Your task to perform on an android device: open device folders in google photos Image 0: 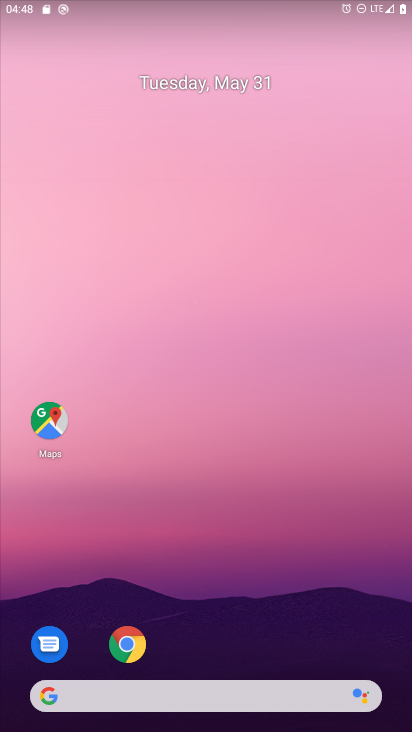
Step 0: drag from (334, 500) to (306, 123)
Your task to perform on an android device: open device folders in google photos Image 1: 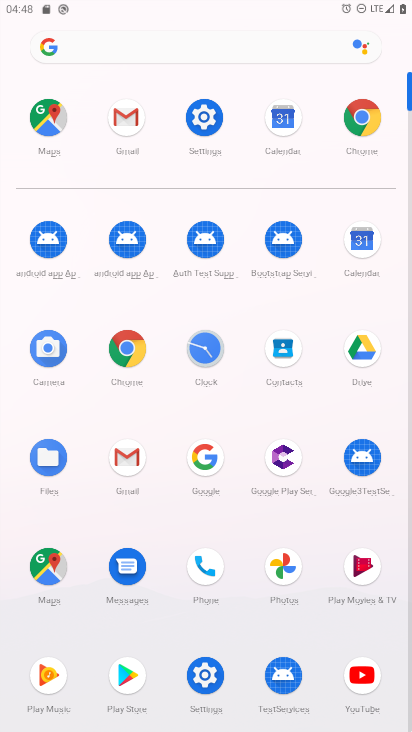
Step 1: click (283, 573)
Your task to perform on an android device: open device folders in google photos Image 2: 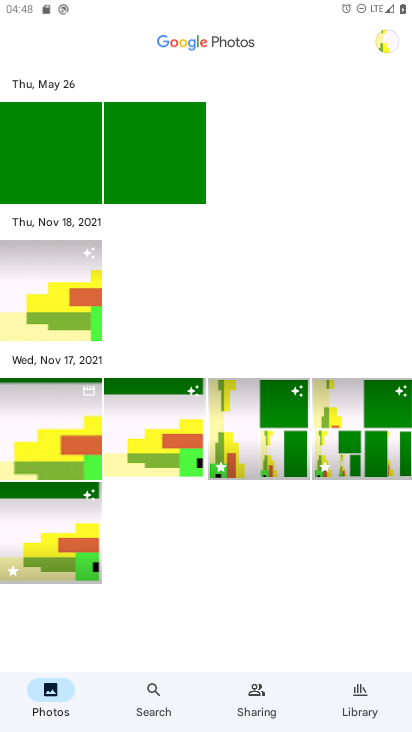
Step 2: click (370, 694)
Your task to perform on an android device: open device folders in google photos Image 3: 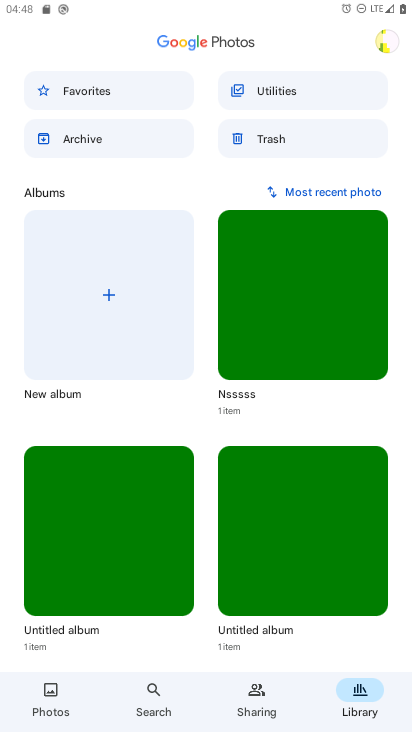
Step 3: click (367, 716)
Your task to perform on an android device: open device folders in google photos Image 4: 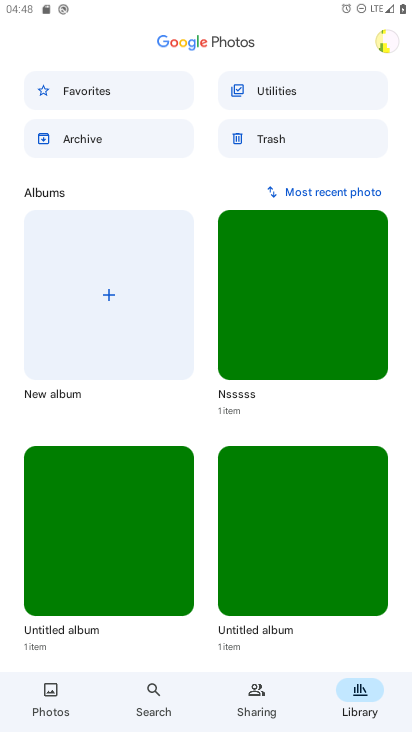
Step 4: click (391, 29)
Your task to perform on an android device: open device folders in google photos Image 5: 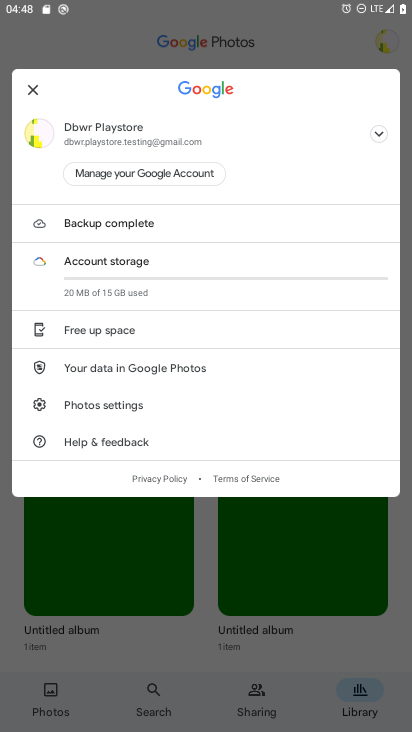
Step 5: click (372, 717)
Your task to perform on an android device: open device folders in google photos Image 6: 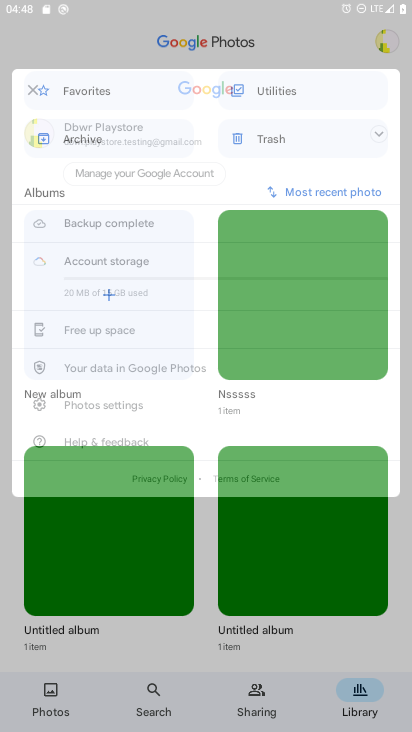
Step 6: click (370, 696)
Your task to perform on an android device: open device folders in google photos Image 7: 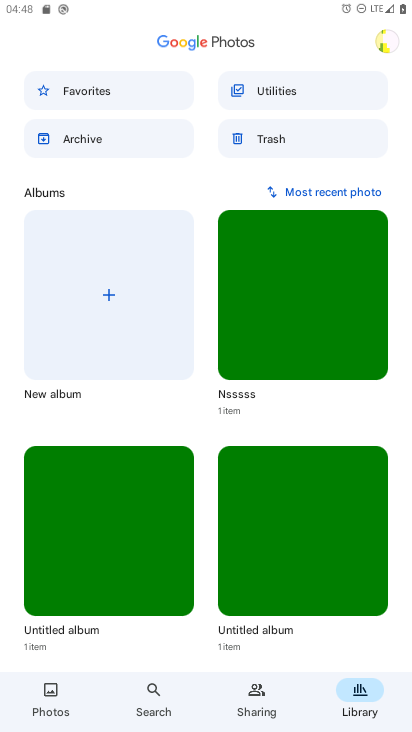
Step 7: click (289, 83)
Your task to perform on an android device: open device folders in google photos Image 8: 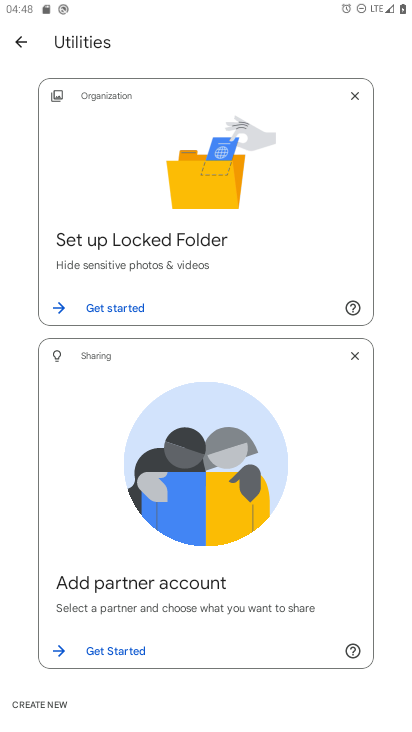
Step 8: drag from (294, 663) to (318, 150)
Your task to perform on an android device: open device folders in google photos Image 9: 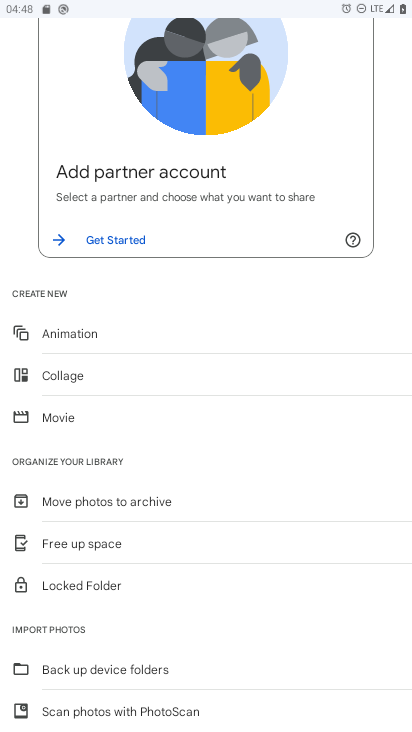
Step 9: drag from (45, 100) to (216, 6)
Your task to perform on an android device: open device folders in google photos Image 10: 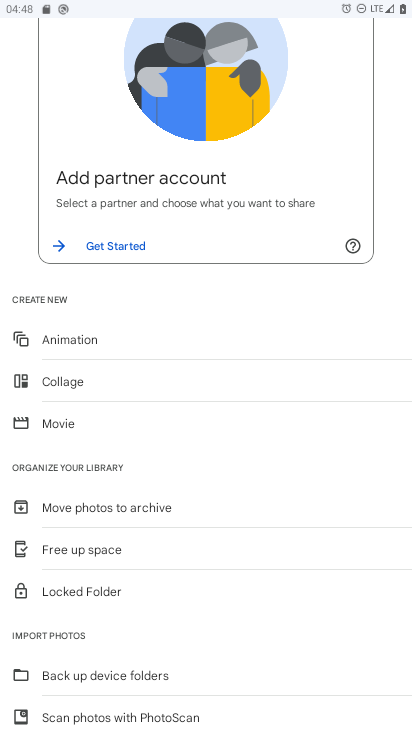
Step 10: click (107, 670)
Your task to perform on an android device: open device folders in google photos Image 11: 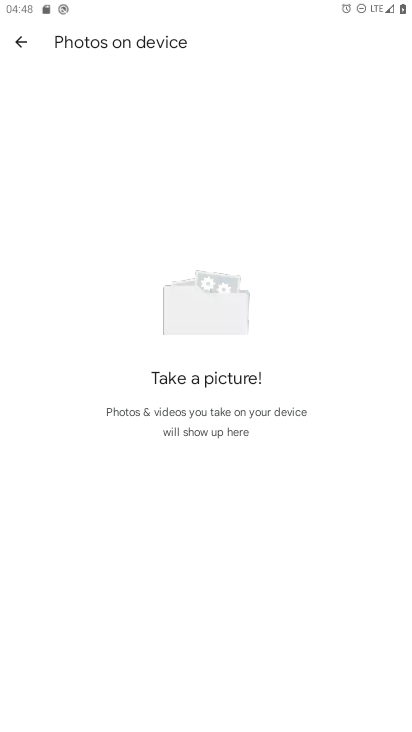
Step 11: task complete